Your task to perform on an android device: empty trash in the gmail app Image 0: 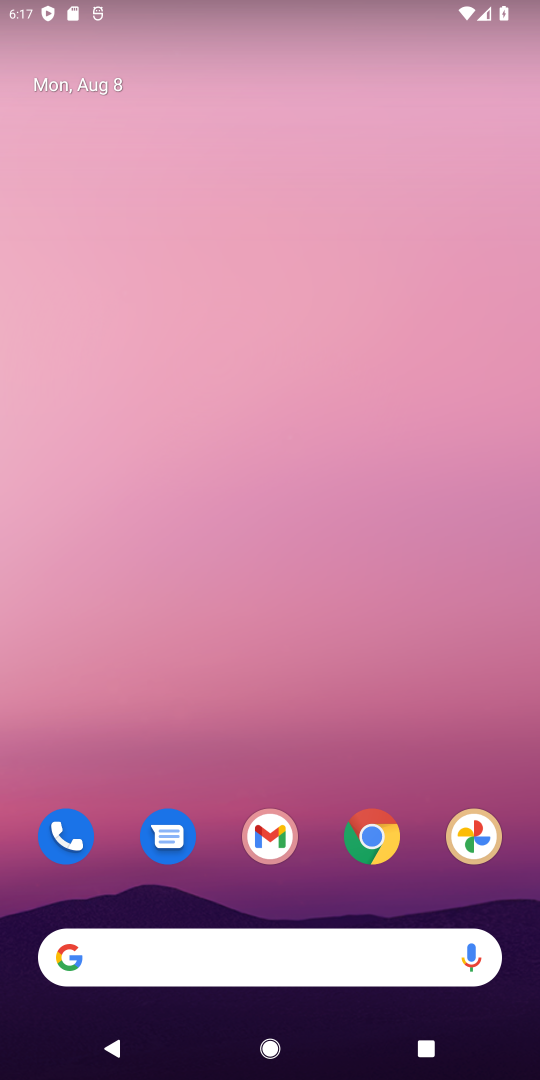
Step 0: click (350, 67)
Your task to perform on an android device: empty trash in the gmail app Image 1: 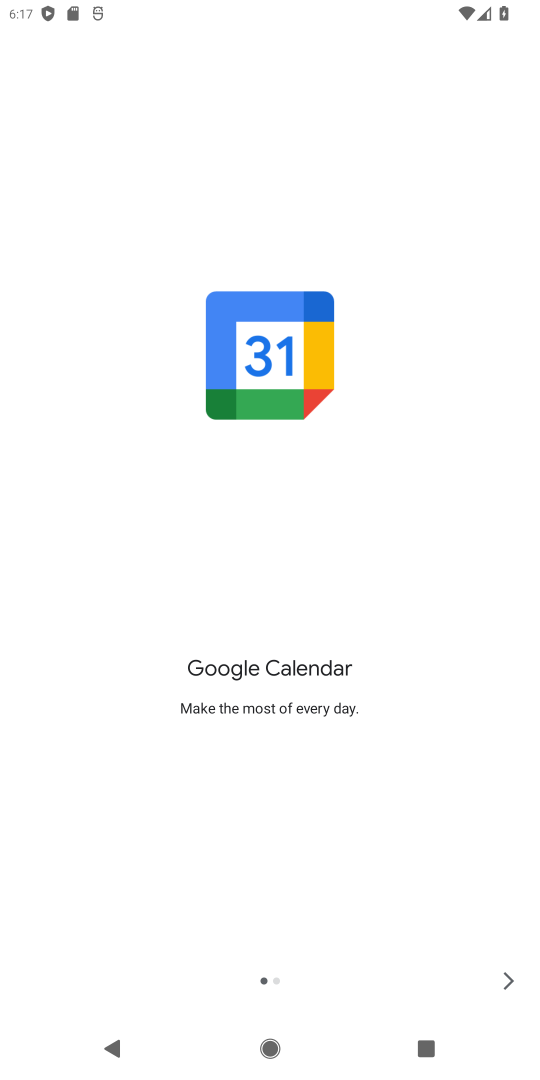
Step 1: click (504, 978)
Your task to perform on an android device: empty trash in the gmail app Image 2: 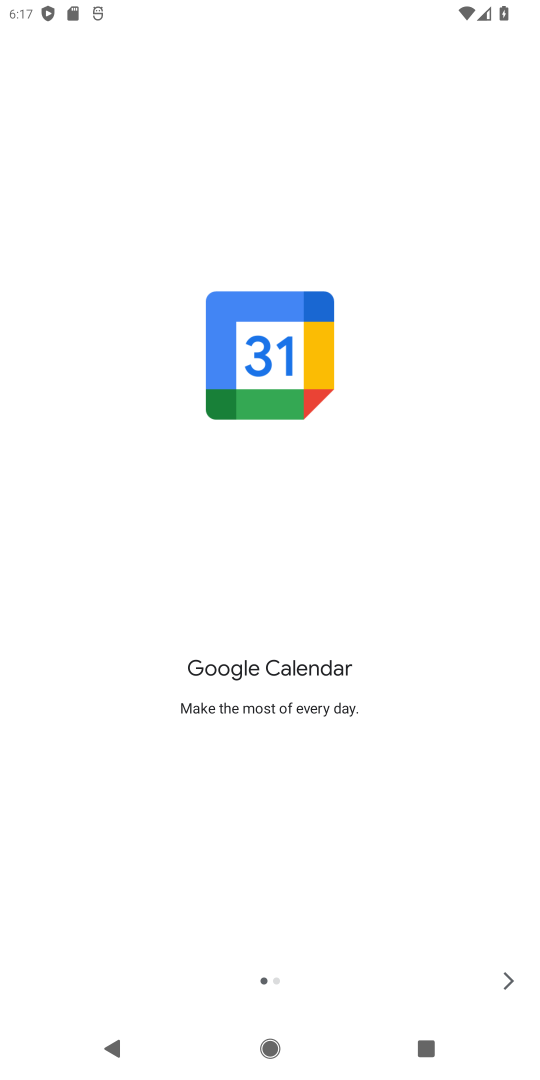
Step 2: click (504, 978)
Your task to perform on an android device: empty trash in the gmail app Image 3: 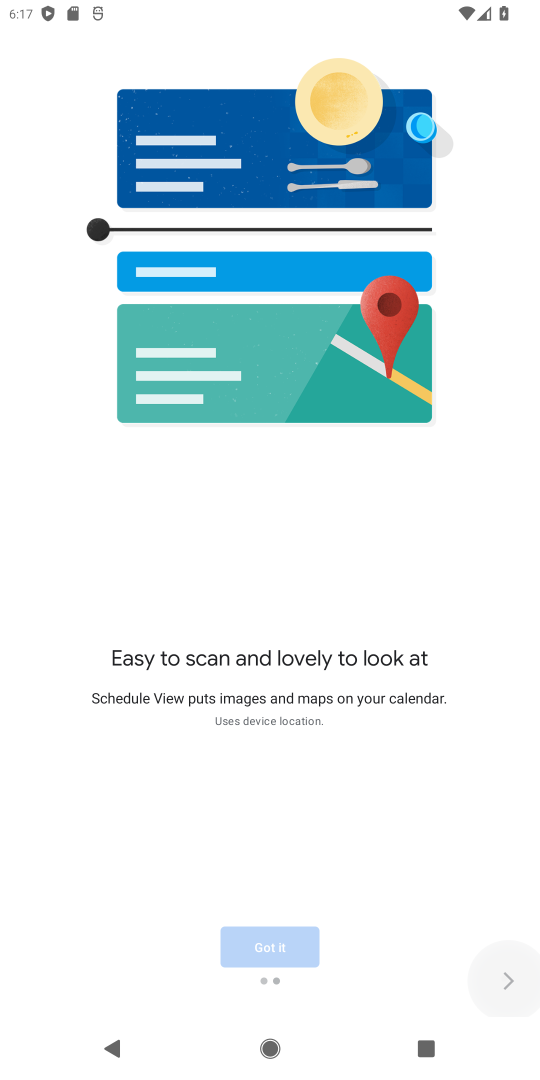
Step 3: click (504, 978)
Your task to perform on an android device: empty trash in the gmail app Image 4: 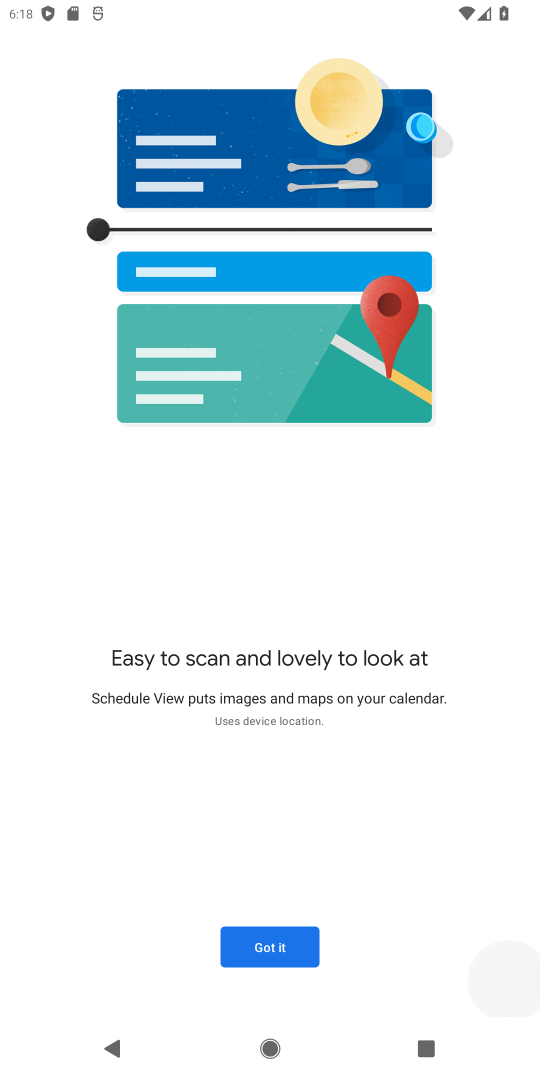
Step 4: click (504, 978)
Your task to perform on an android device: empty trash in the gmail app Image 5: 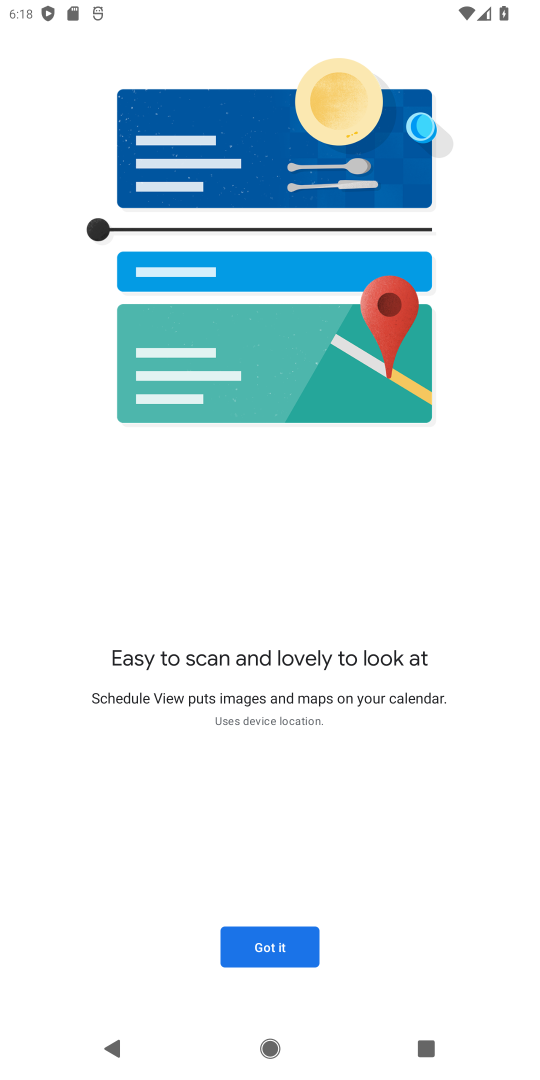
Step 5: click (282, 956)
Your task to perform on an android device: empty trash in the gmail app Image 6: 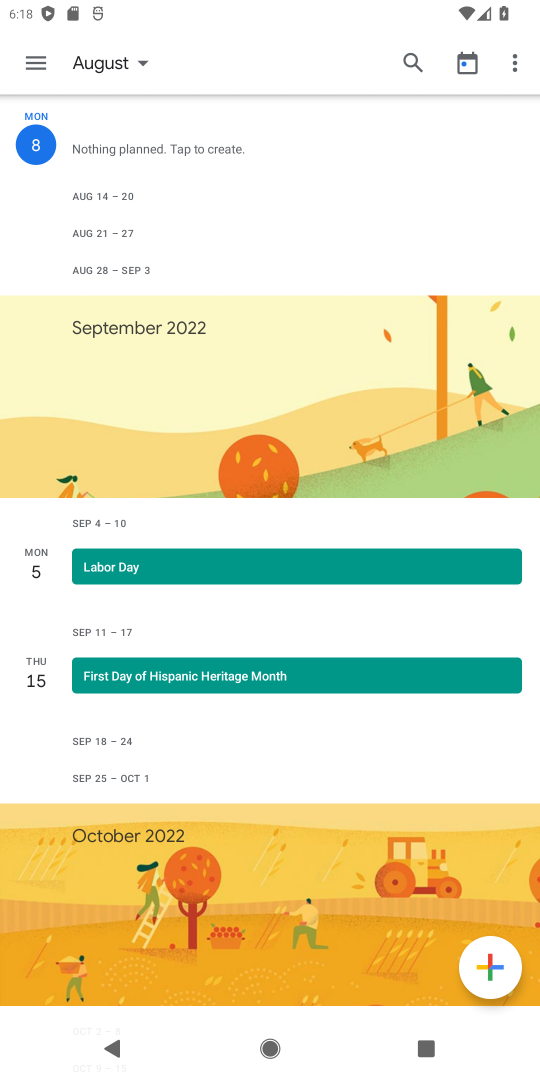
Step 6: press home button
Your task to perform on an android device: empty trash in the gmail app Image 7: 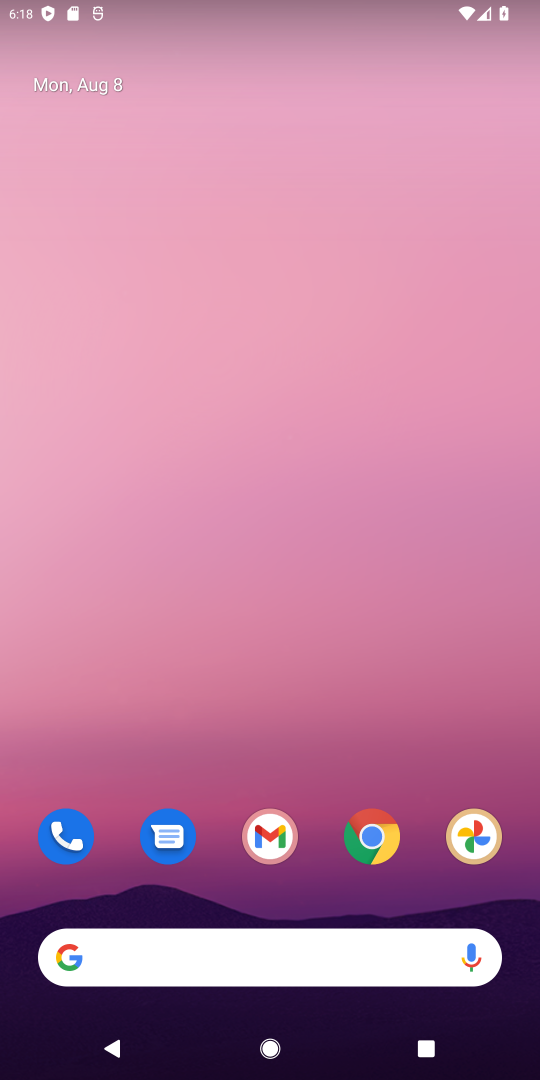
Step 7: drag from (331, 754) to (312, 79)
Your task to perform on an android device: empty trash in the gmail app Image 8: 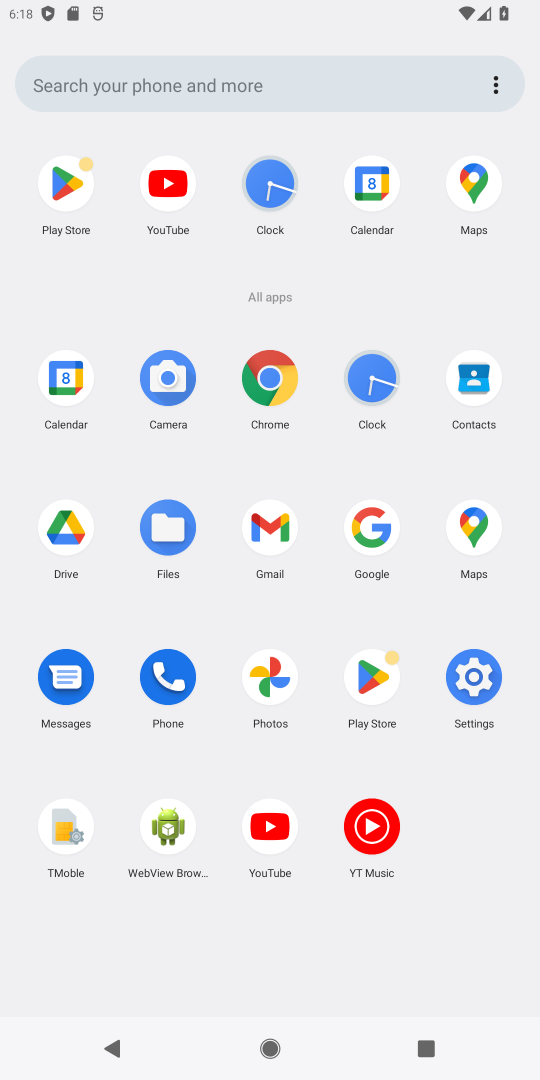
Step 8: click (276, 533)
Your task to perform on an android device: empty trash in the gmail app Image 9: 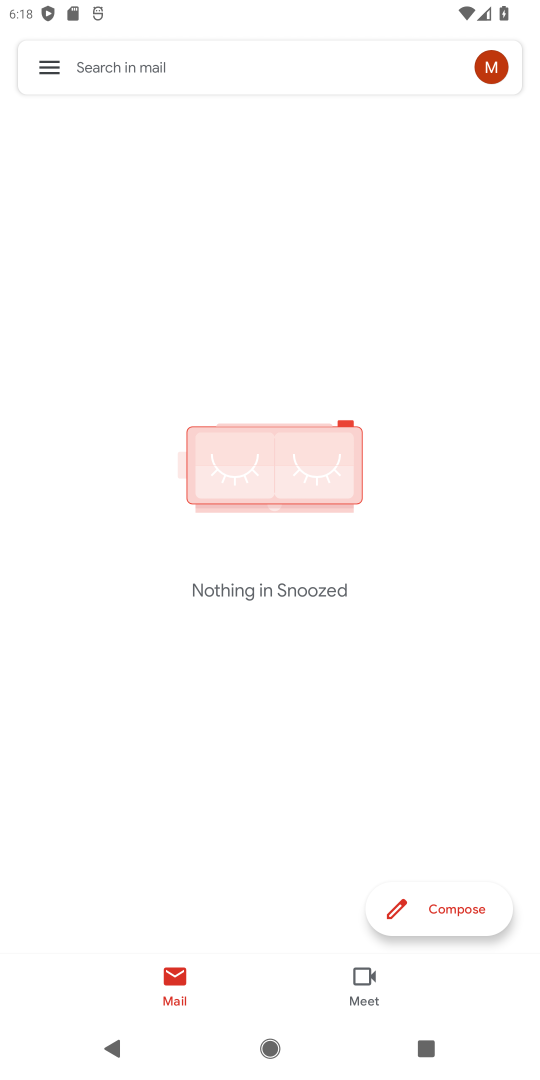
Step 9: click (49, 81)
Your task to perform on an android device: empty trash in the gmail app Image 10: 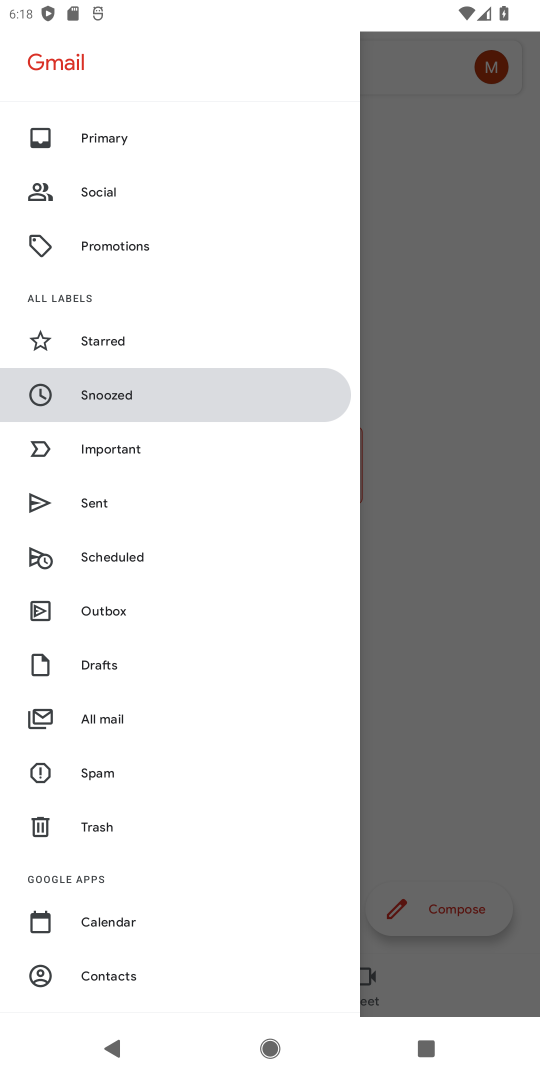
Step 10: click (147, 832)
Your task to perform on an android device: empty trash in the gmail app Image 11: 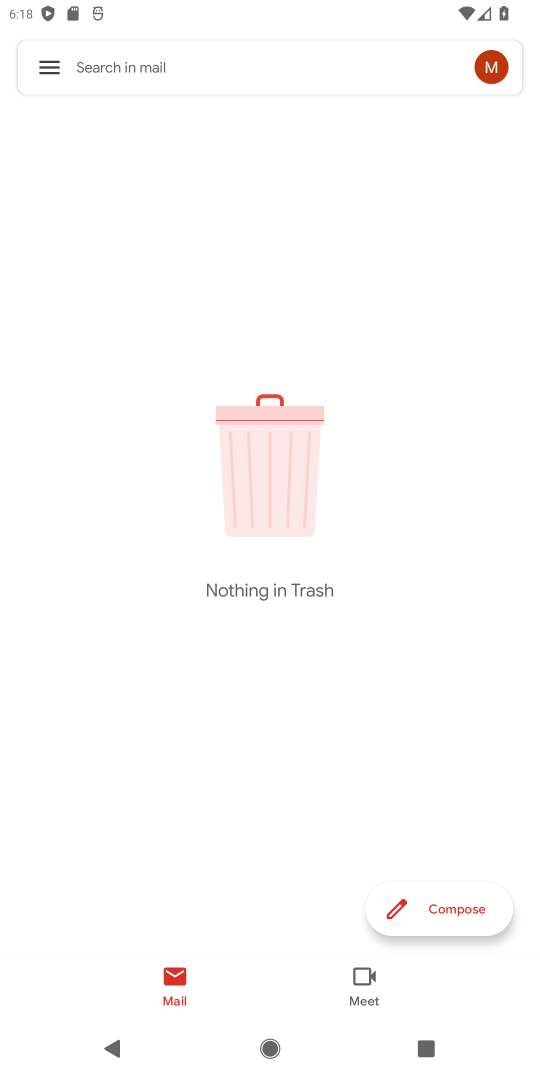
Step 11: task complete